Your task to perform on an android device: change keyboard looks Image 0: 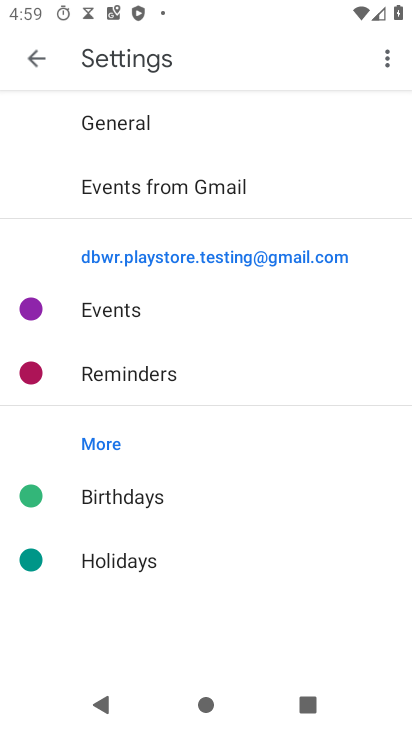
Step 0: press back button
Your task to perform on an android device: change keyboard looks Image 1: 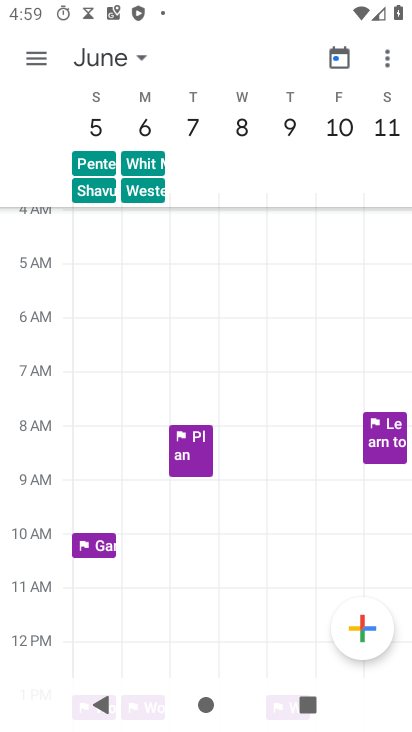
Step 1: press back button
Your task to perform on an android device: change keyboard looks Image 2: 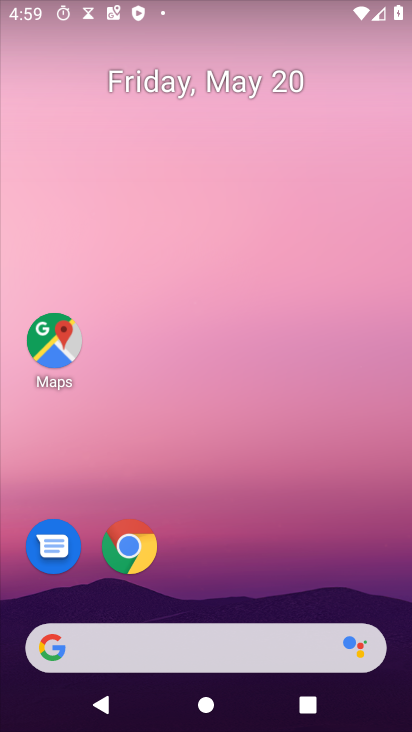
Step 2: drag from (247, 578) to (193, 1)
Your task to perform on an android device: change keyboard looks Image 3: 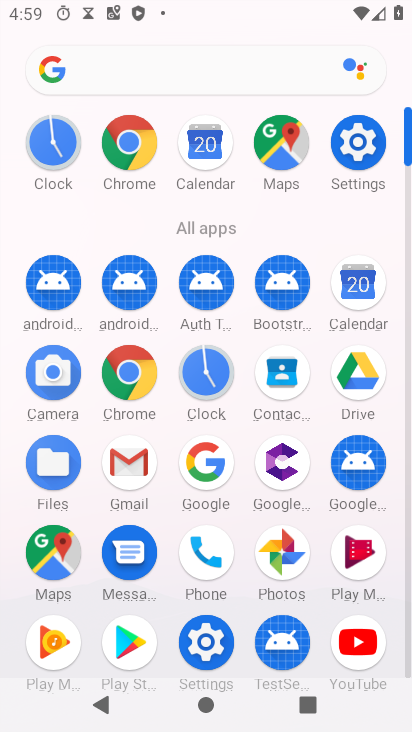
Step 3: click (356, 141)
Your task to perform on an android device: change keyboard looks Image 4: 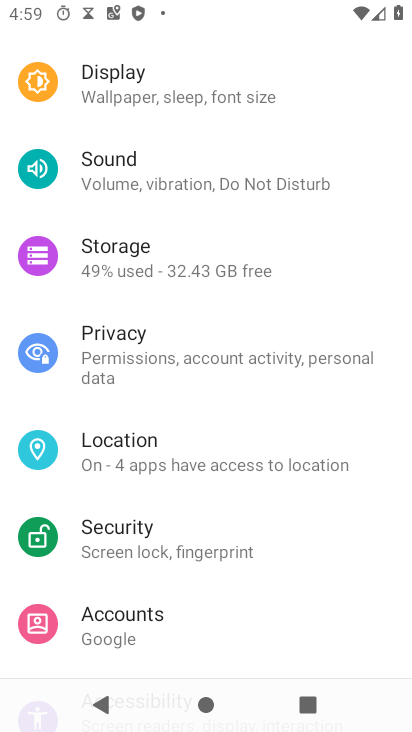
Step 4: drag from (167, 486) to (234, 384)
Your task to perform on an android device: change keyboard looks Image 5: 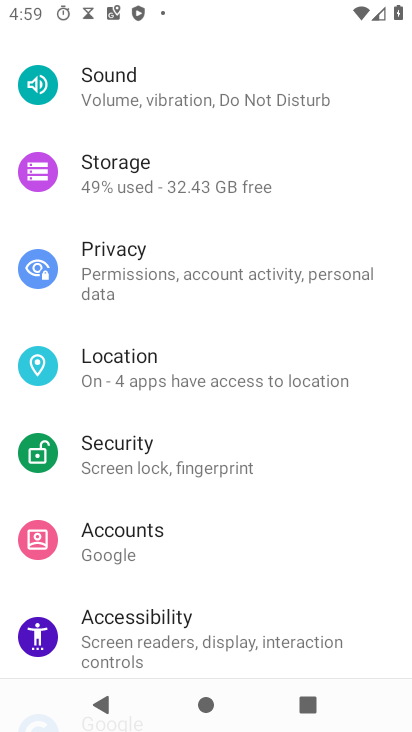
Step 5: drag from (181, 578) to (209, 453)
Your task to perform on an android device: change keyboard looks Image 6: 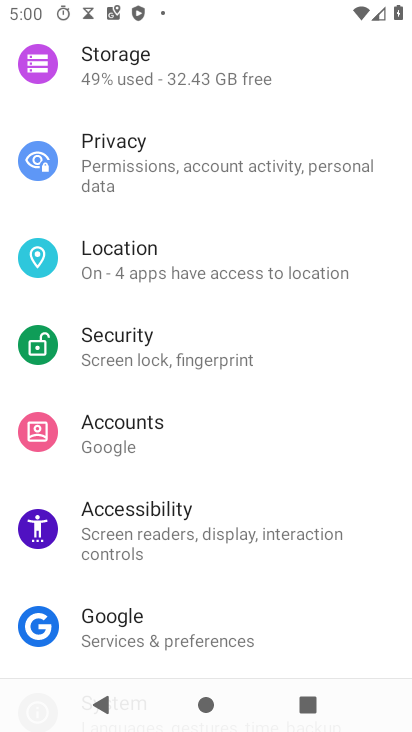
Step 6: drag from (136, 607) to (182, 494)
Your task to perform on an android device: change keyboard looks Image 7: 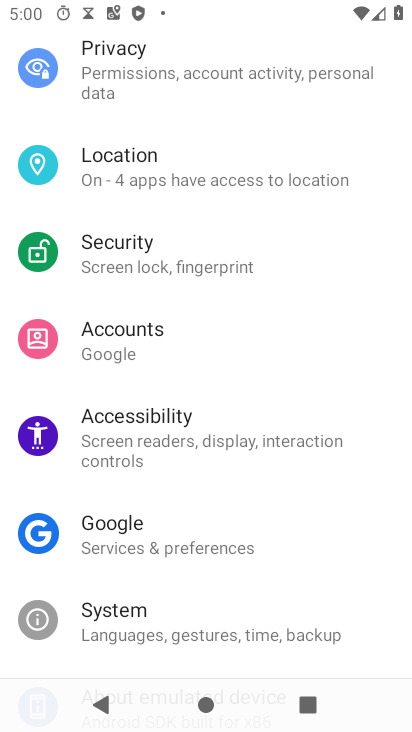
Step 7: click (121, 602)
Your task to perform on an android device: change keyboard looks Image 8: 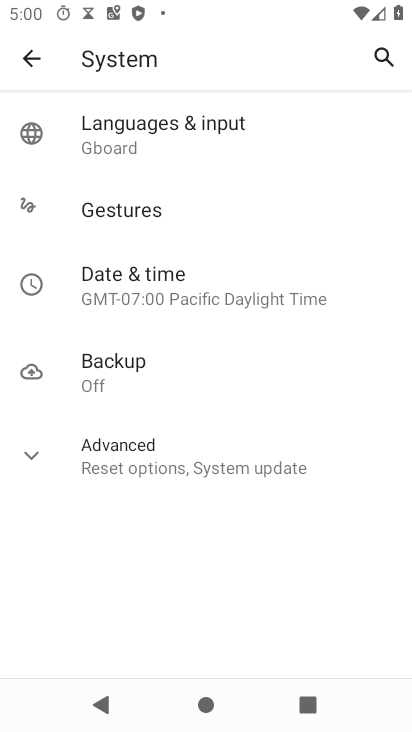
Step 8: click (118, 136)
Your task to perform on an android device: change keyboard looks Image 9: 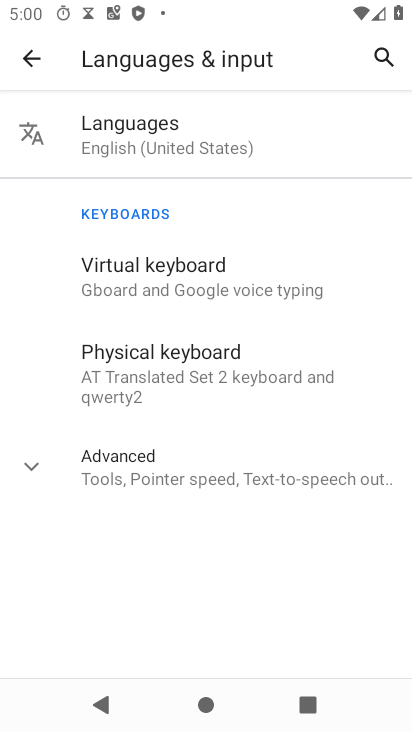
Step 9: click (121, 271)
Your task to perform on an android device: change keyboard looks Image 10: 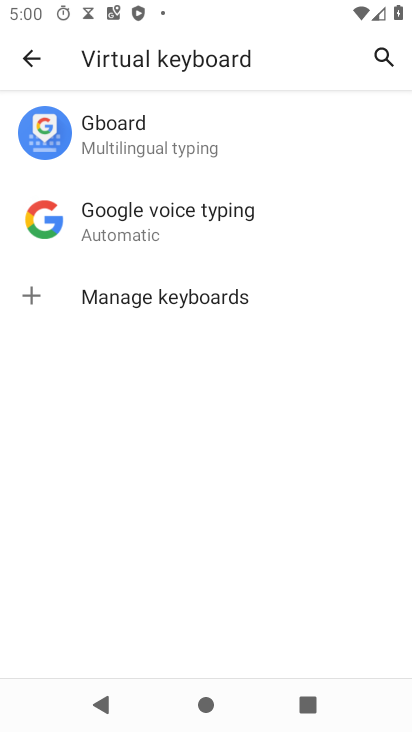
Step 10: click (133, 146)
Your task to perform on an android device: change keyboard looks Image 11: 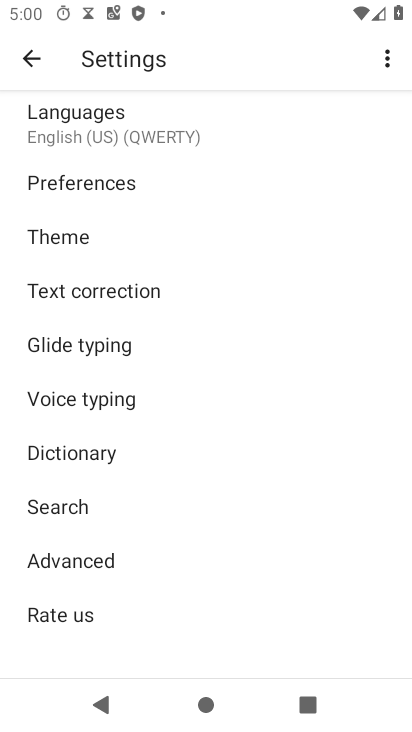
Step 11: click (49, 233)
Your task to perform on an android device: change keyboard looks Image 12: 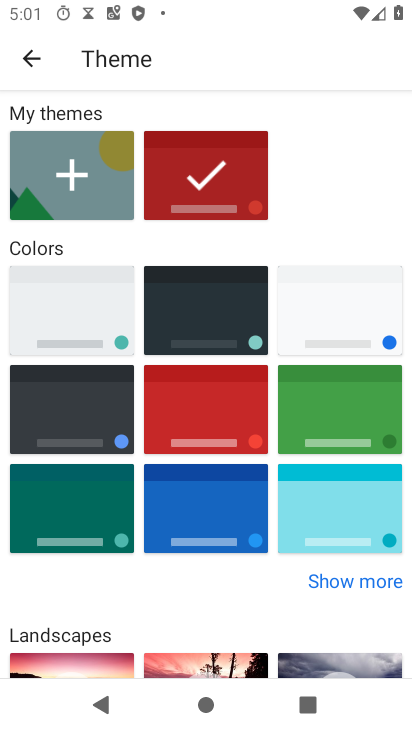
Step 12: click (207, 413)
Your task to perform on an android device: change keyboard looks Image 13: 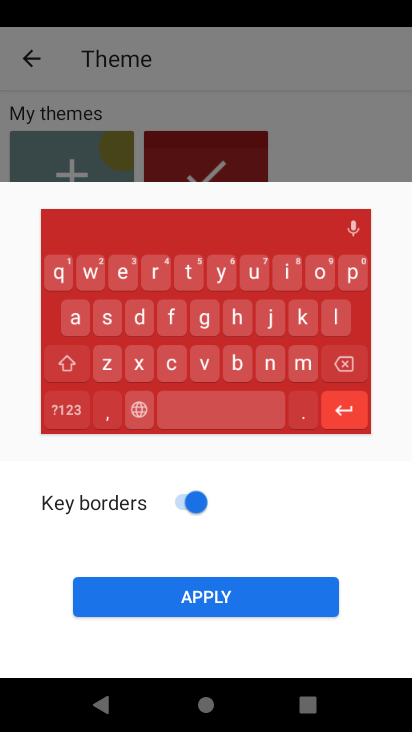
Step 13: click (204, 501)
Your task to perform on an android device: change keyboard looks Image 14: 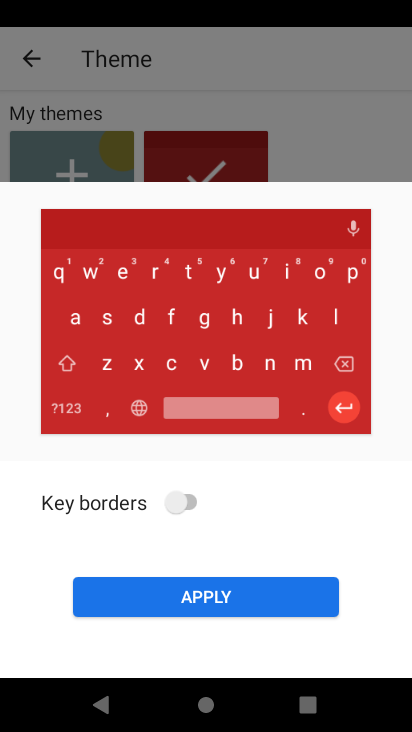
Step 14: click (183, 499)
Your task to perform on an android device: change keyboard looks Image 15: 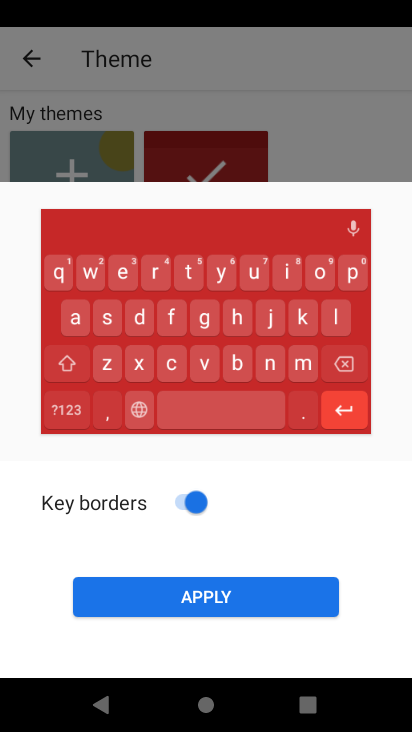
Step 15: click (226, 587)
Your task to perform on an android device: change keyboard looks Image 16: 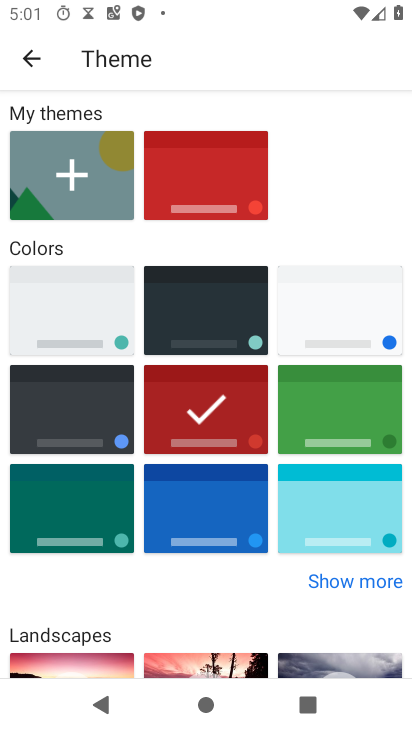
Step 16: task complete